Your task to perform on an android device: turn on location history Image 0: 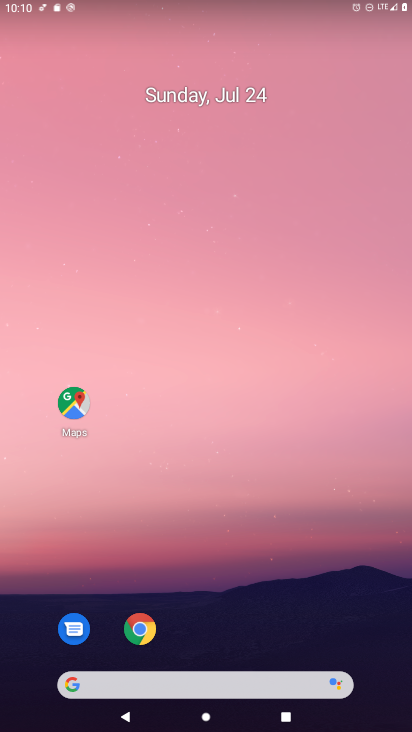
Step 0: drag from (352, 634) to (197, 54)
Your task to perform on an android device: turn on location history Image 1: 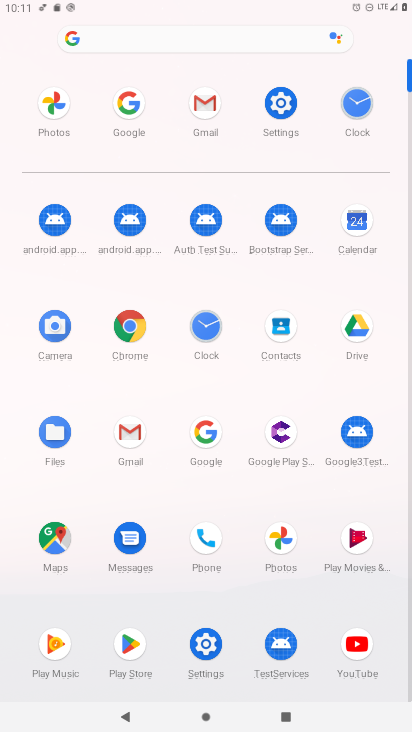
Step 1: click (204, 630)
Your task to perform on an android device: turn on location history Image 2: 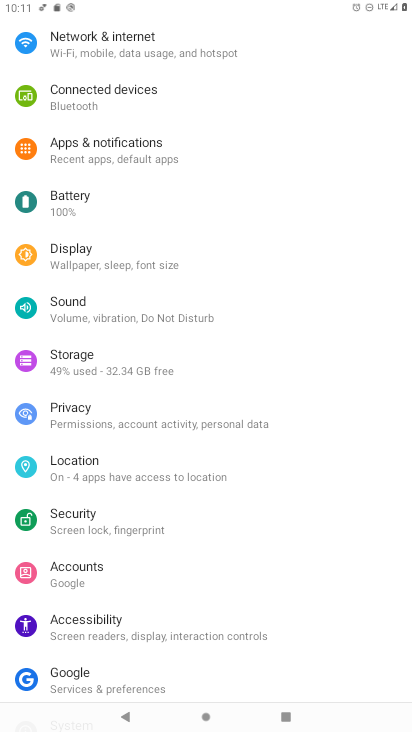
Step 2: click (111, 461)
Your task to perform on an android device: turn on location history Image 3: 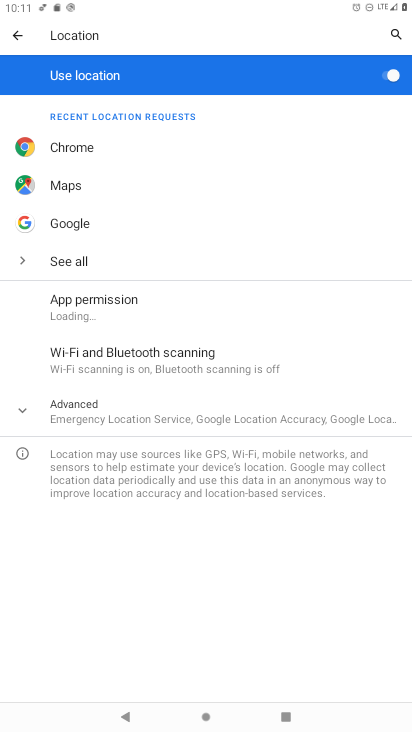
Step 3: click (109, 420)
Your task to perform on an android device: turn on location history Image 4: 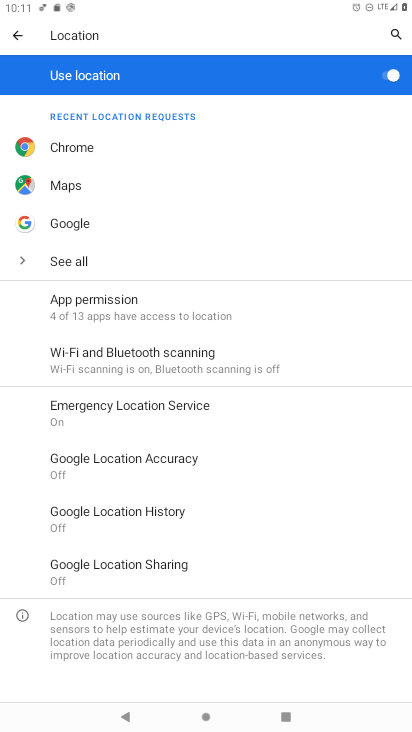
Step 4: click (184, 517)
Your task to perform on an android device: turn on location history Image 5: 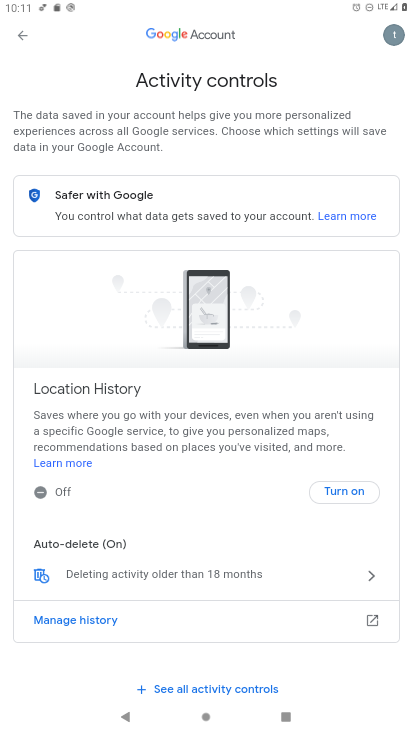
Step 5: click (334, 482)
Your task to perform on an android device: turn on location history Image 6: 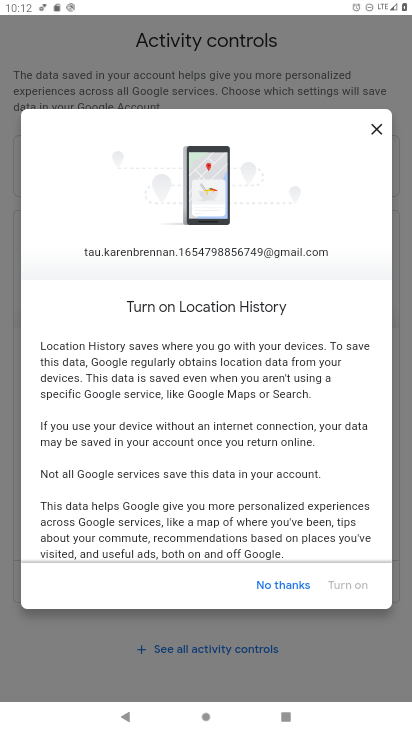
Step 6: task complete